Your task to perform on an android device: change the clock display to analog Image 0: 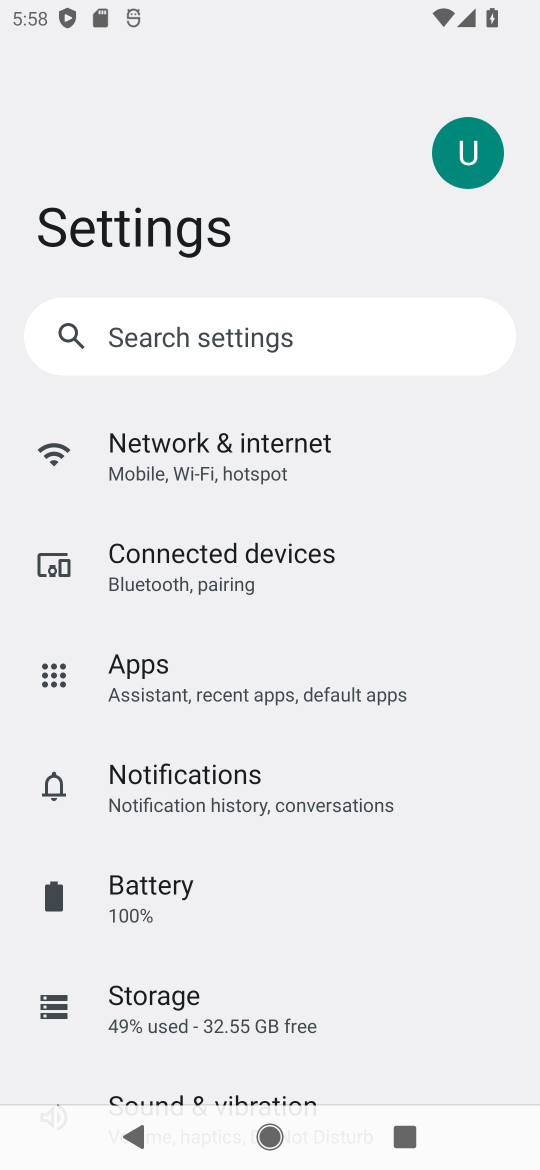
Step 0: press home button
Your task to perform on an android device: change the clock display to analog Image 1: 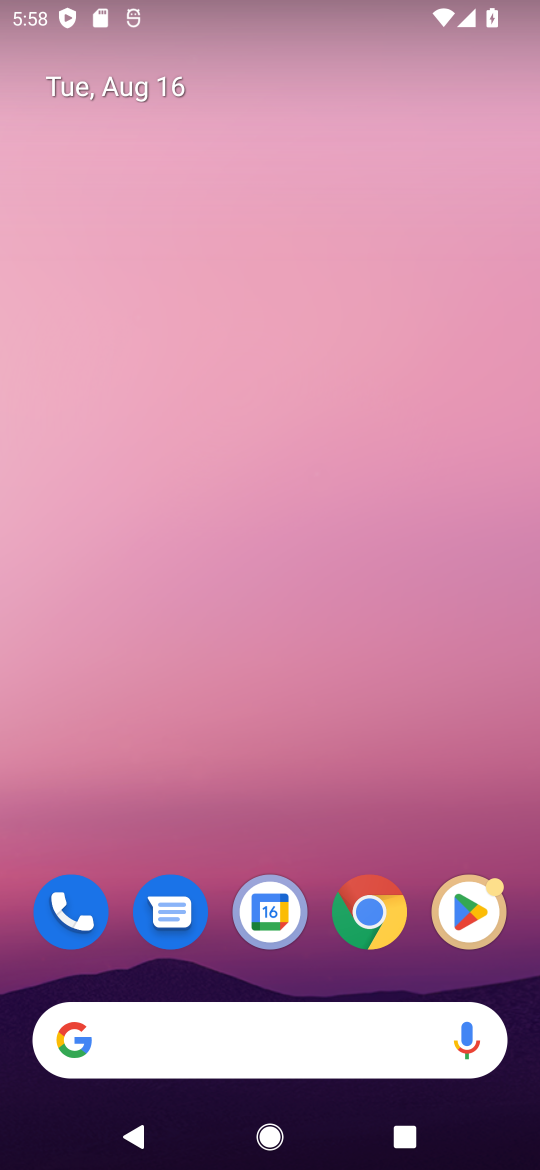
Step 1: drag from (427, 973) to (444, 189)
Your task to perform on an android device: change the clock display to analog Image 2: 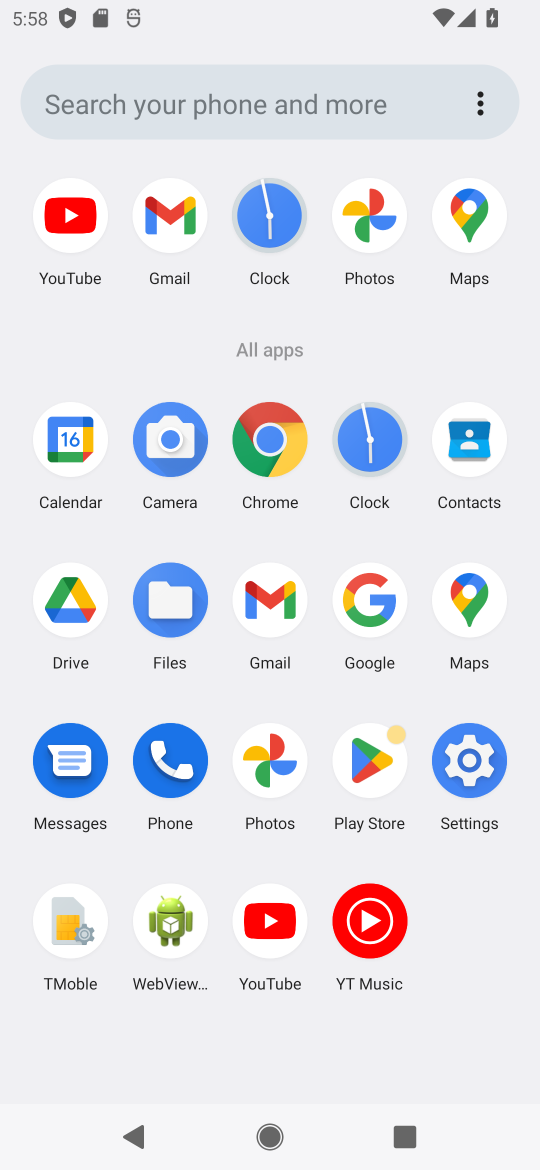
Step 2: click (371, 440)
Your task to perform on an android device: change the clock display to analog Image 3: 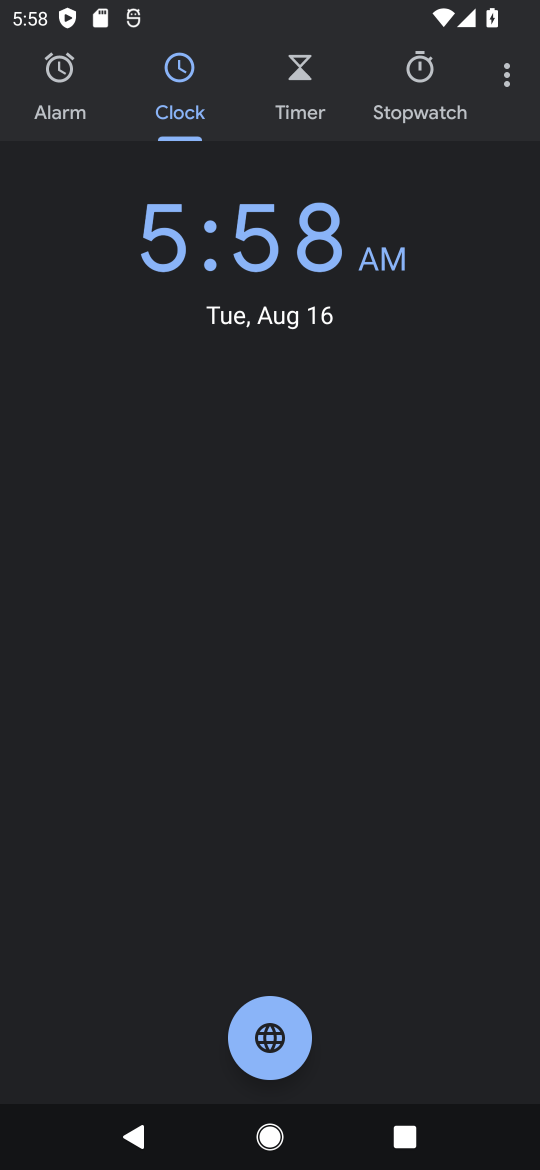
Step 3: click (505, 87)
Your task to perform on an android device: change the clock display to analog Image 4: 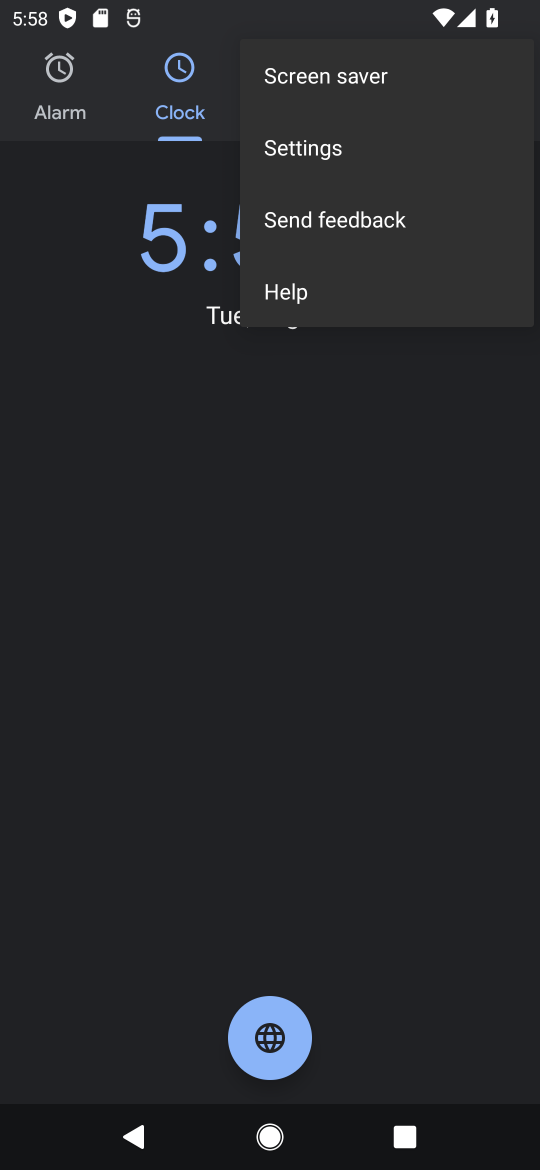
Step 4: click (302, 147)
Your task to perform on an android device: change the clock display to analog Image 5: 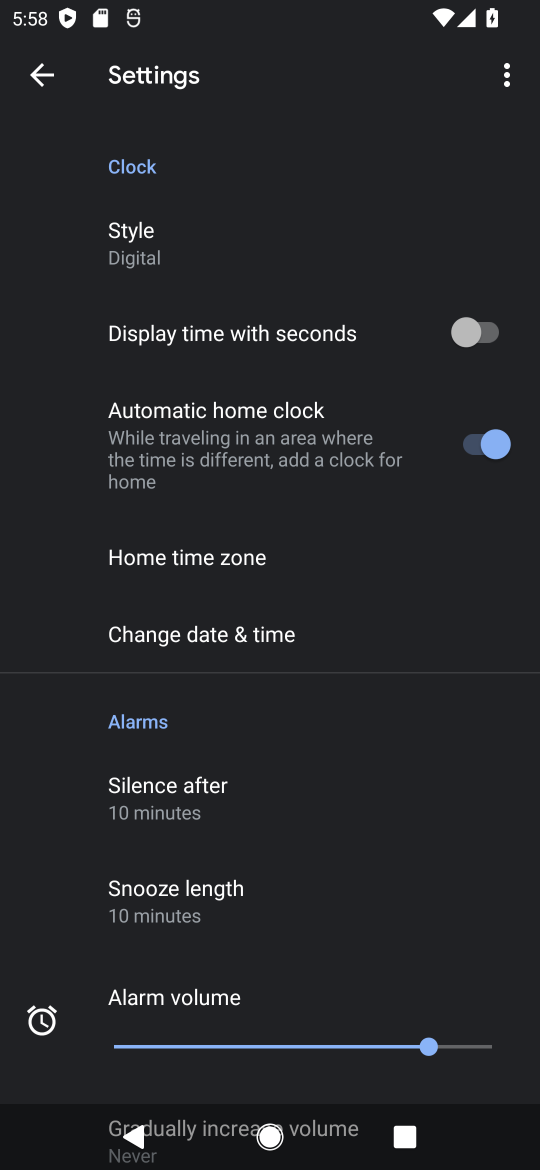
Step 5: click (143, 247)
Your task to perform on an android device: change the clock display to analog Image 6: 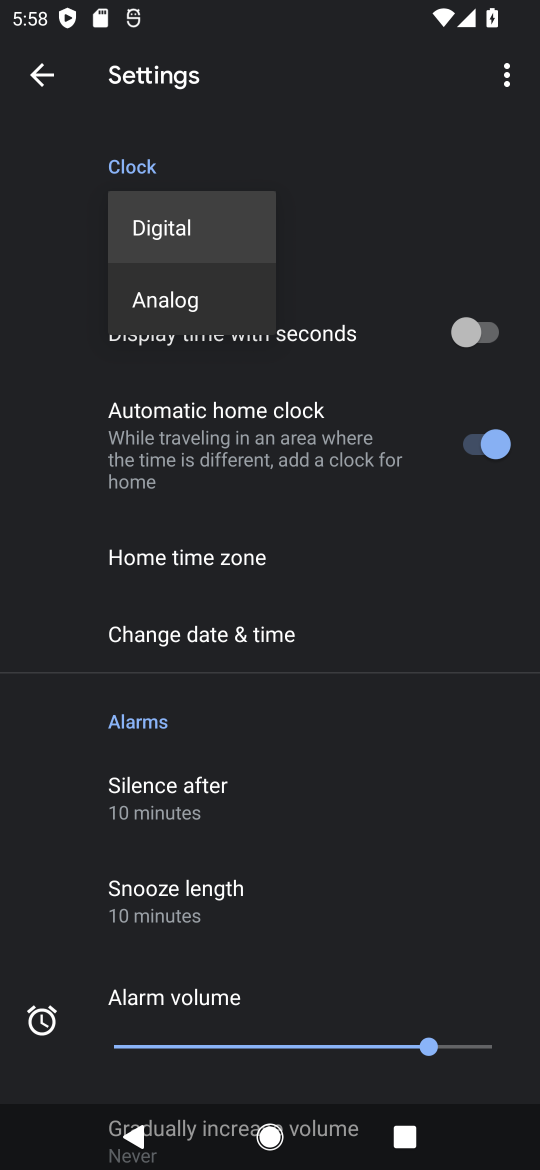
Step 6: click (168, 302)
Your task to perform on an android device: change the clock display to analog Image 7: 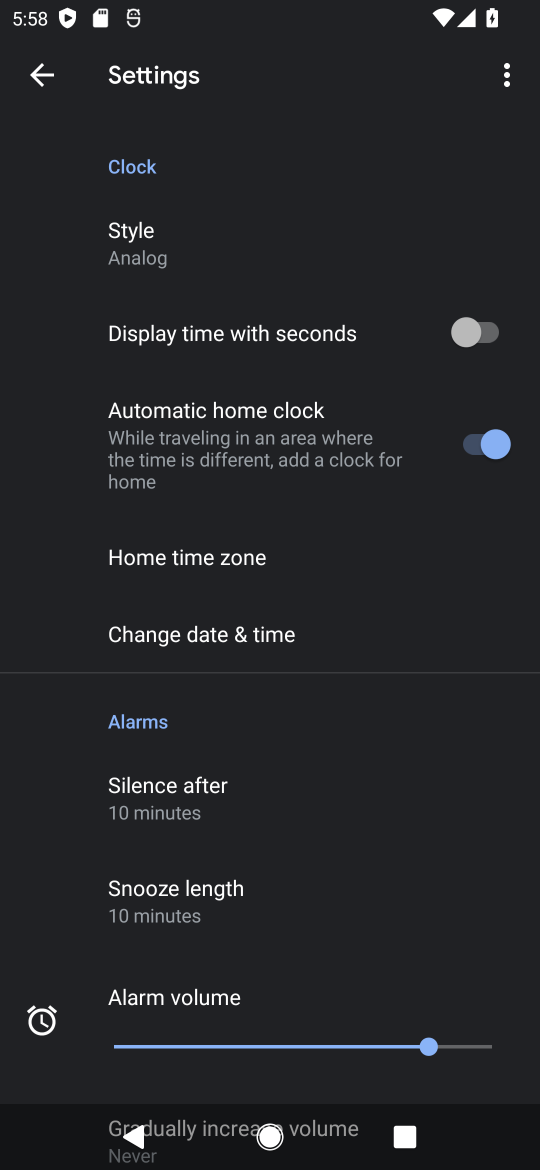
Step 7: task complete